Your task to perform on an android device: show emergency info Image 0: 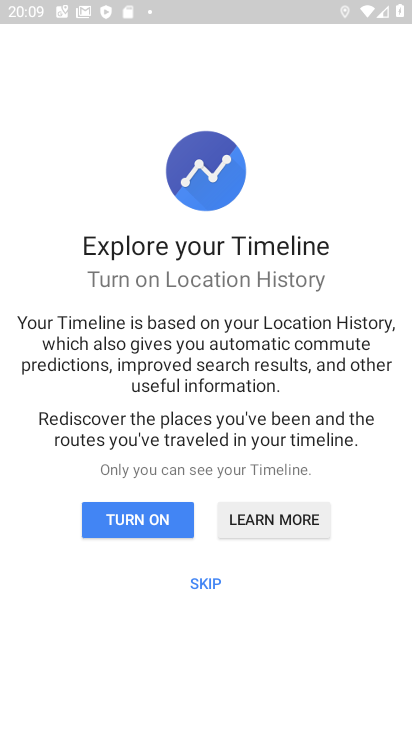
Step 0: task complete